Your task to perform on an android device: check the backup settings in the google photos Image 0: 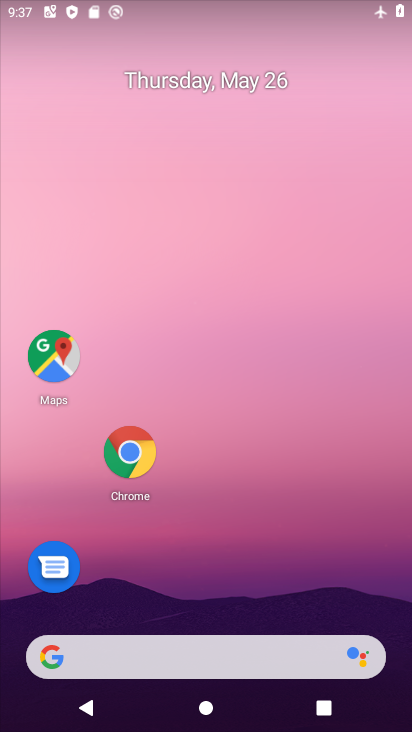
Step 0: drag from (186, 657) to (409, 106)
Your task to perform on an android device: check the backup settings in the google photos Image 1: 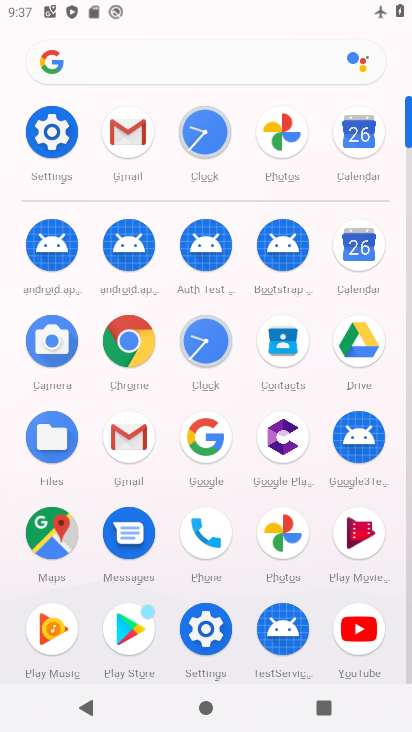
Step 1: click (288, 146)
Your task to perform on an android device: check the backup settings in the google photos Image 2: 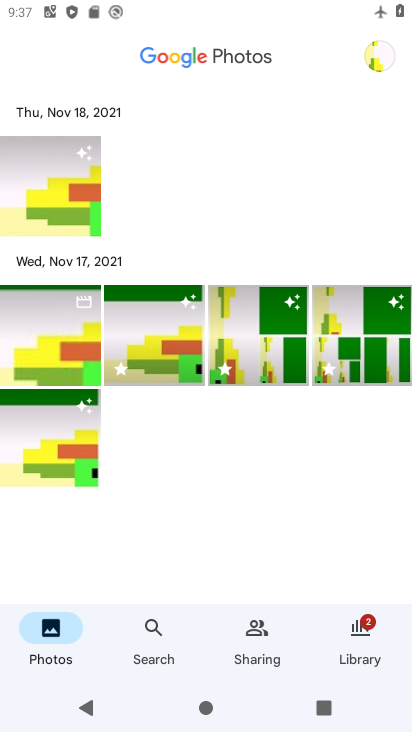
Step 2: click (387, 59)
Your task to perform on an android device: check the backup settings in the google photos Image 3: 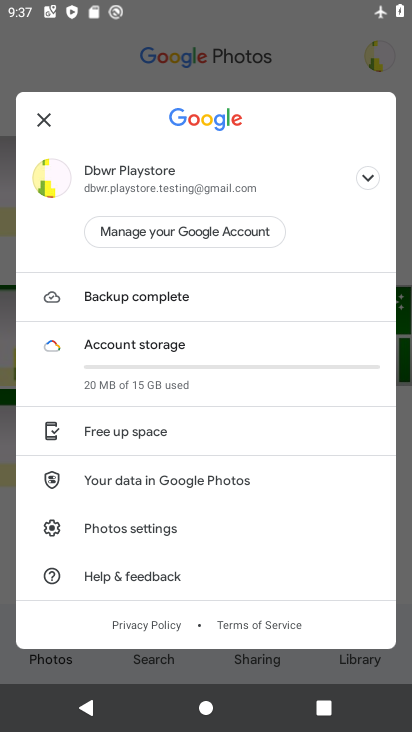
Step 3: click (170, 532)
Your task to perform on an android device: check the backup settings in the google photos Image 4: 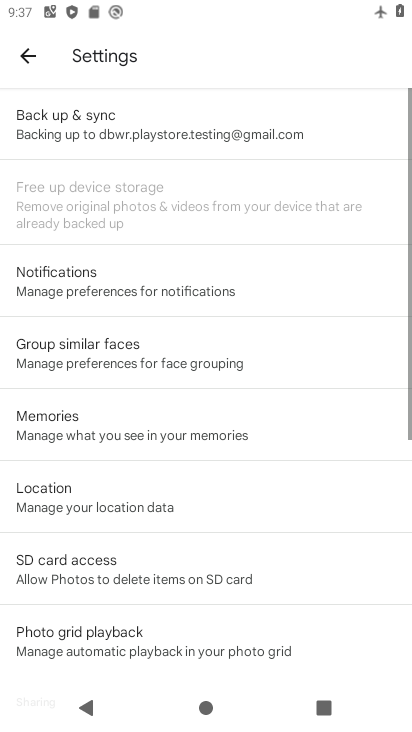
Step 4: click (252, 139)
Your task to perform on an android device: check the backup settings in the google photos Image 5: 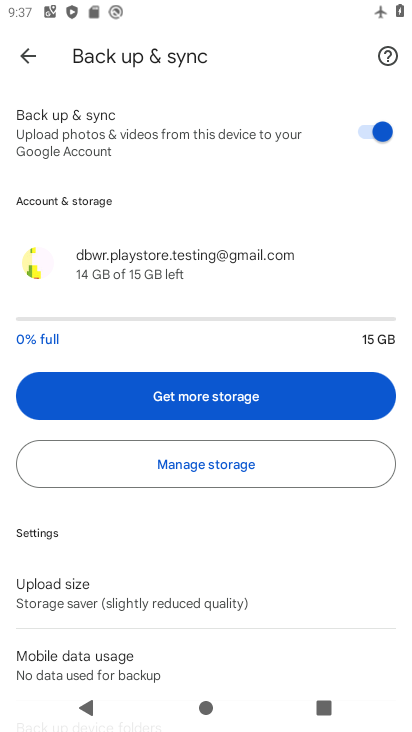
Step 5: task complete